Your task to perform on an android device: What's the news in French Guiana? Image 0: 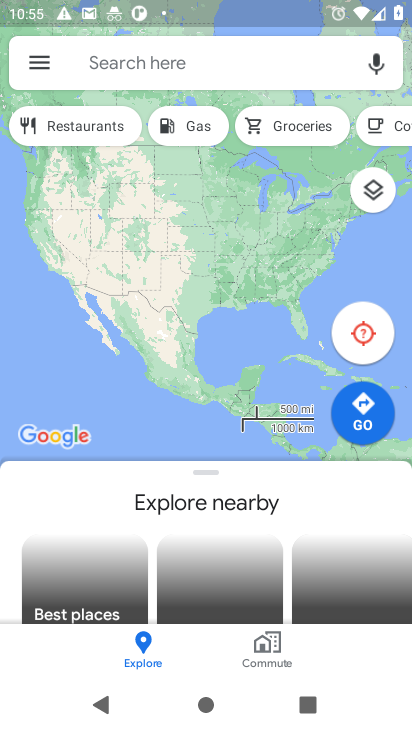
Step 0: press home button
Your task to perform on an android device: What's the news in French Guiana? Image 1: 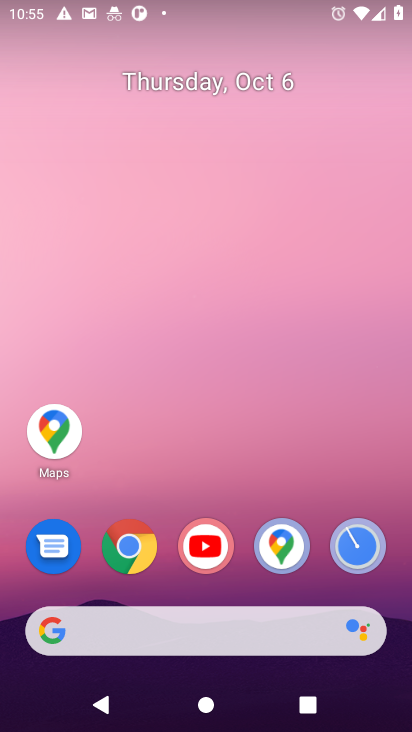
Step 1: click (127, 548)
Your task to perform on an android device: What's the news in French Guiana? Image 2: 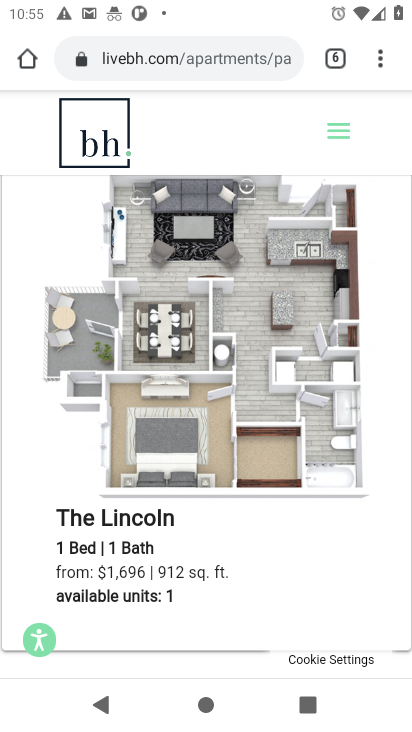
Step 2: click (179, 35)
Your task to perform on an android device: What's the news in French Guiana? Image 3: 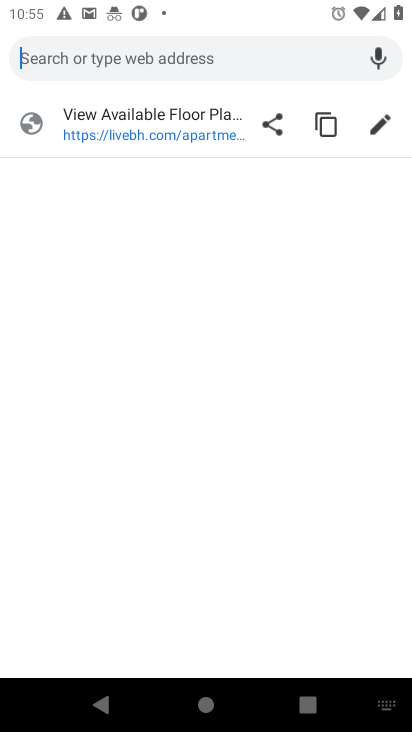
Step 3: type "What's the news in French Guiana?"
Your task to perform on an android device: What's the news in French Guiana? Image 4: 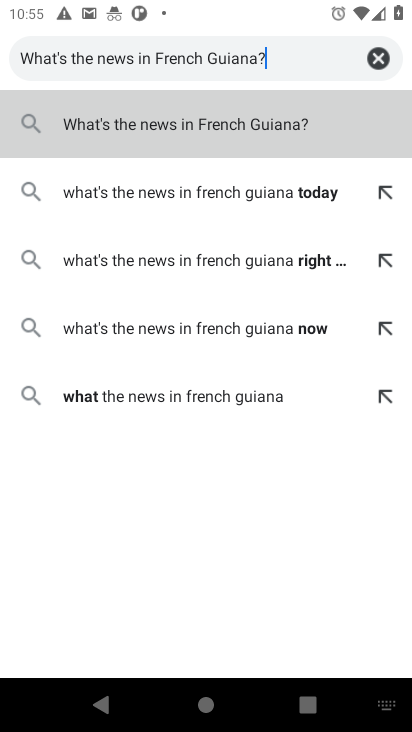
Step 4: click (178, 141)
Your task to perform on an android device: What's the news in French Guiana? Image 5: 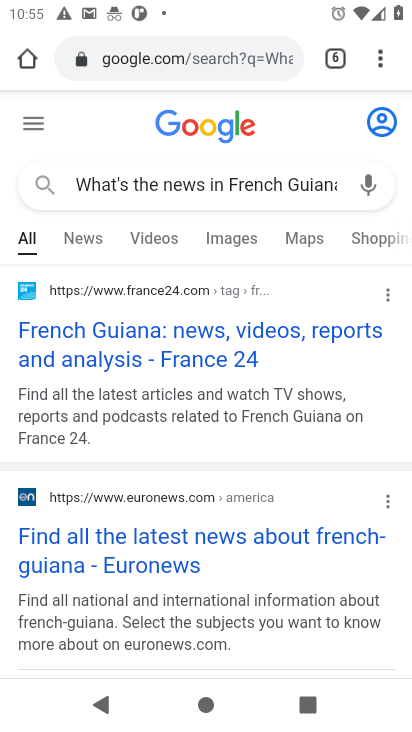
Step 5: click (128, 365)
Your task to perform on an android device: What's the news in French Guiana? Image 6: 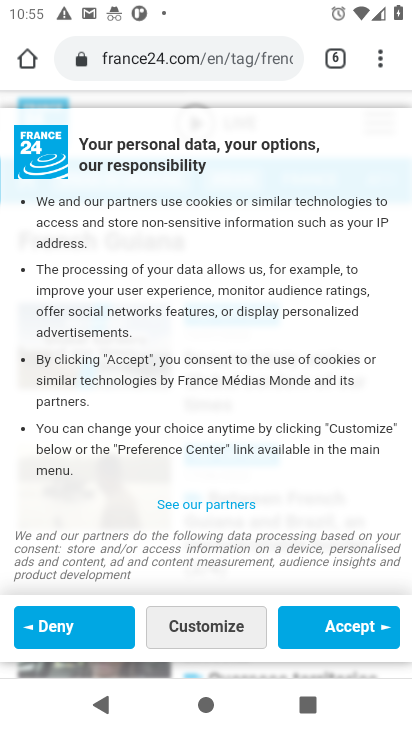
Step 6: click (345, 624)
Your task to perform on an android device: What's the news in French Guiana? Image 7: 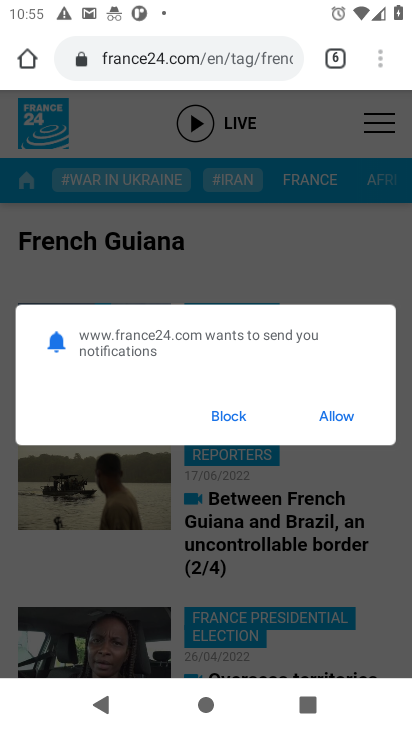
Step 7: click (228, 420)
Your task to perform on an android device: What's the news in French Guiana? Image 8: 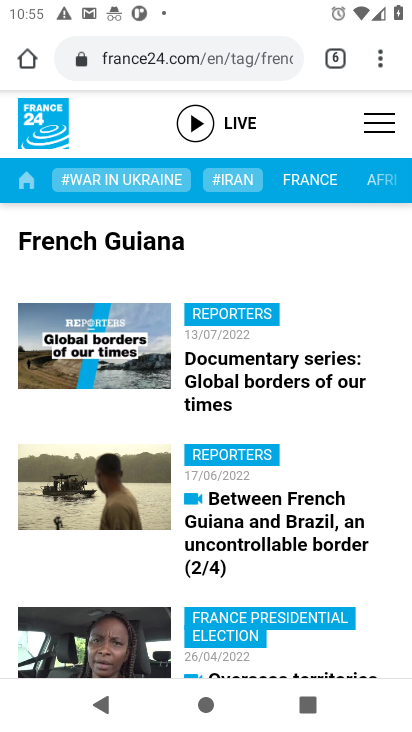
Step 8: task complete